Your task to perform on an android device: open app "Yahoo Mail" (install if not already installed) Image 0: 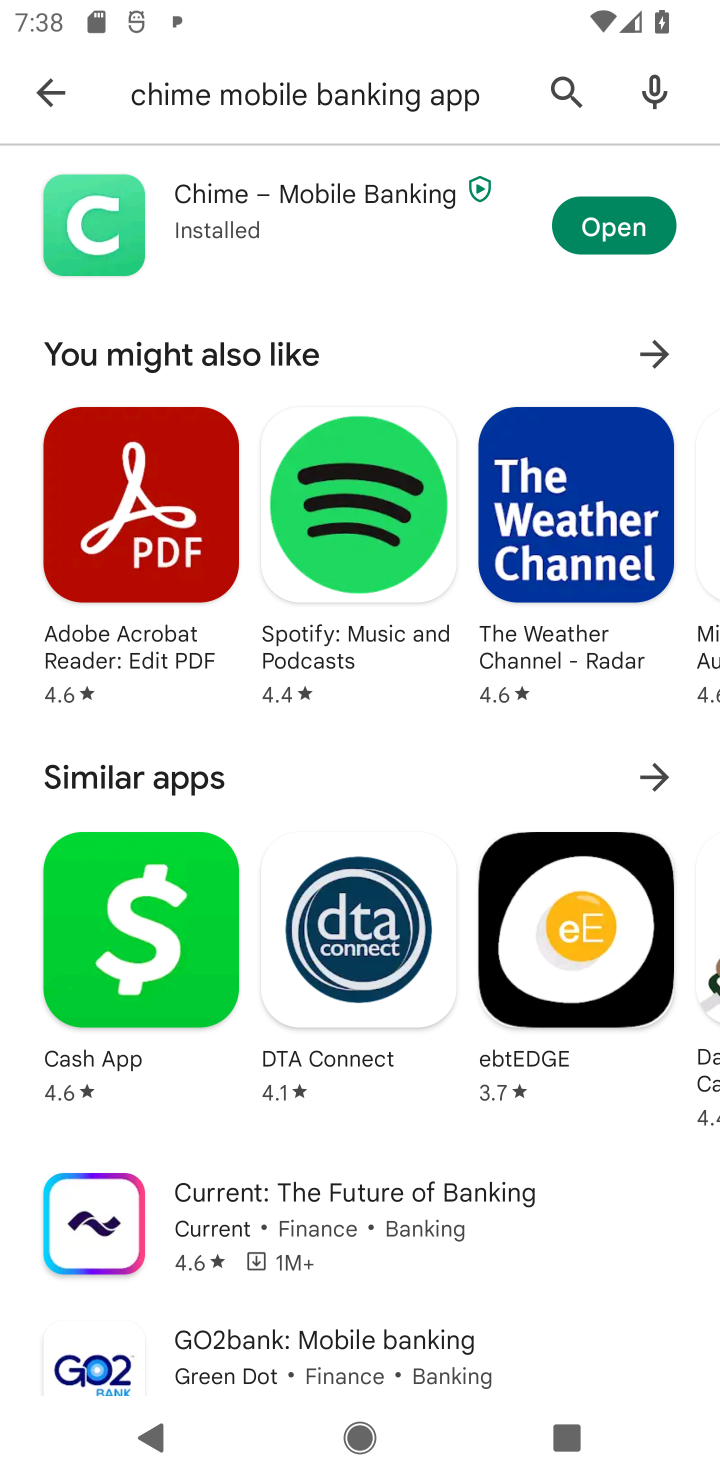
Step 0: press home button
Your task to perform on an android device: open app "Yahoo Mail" (install if not already installed) Image 1: 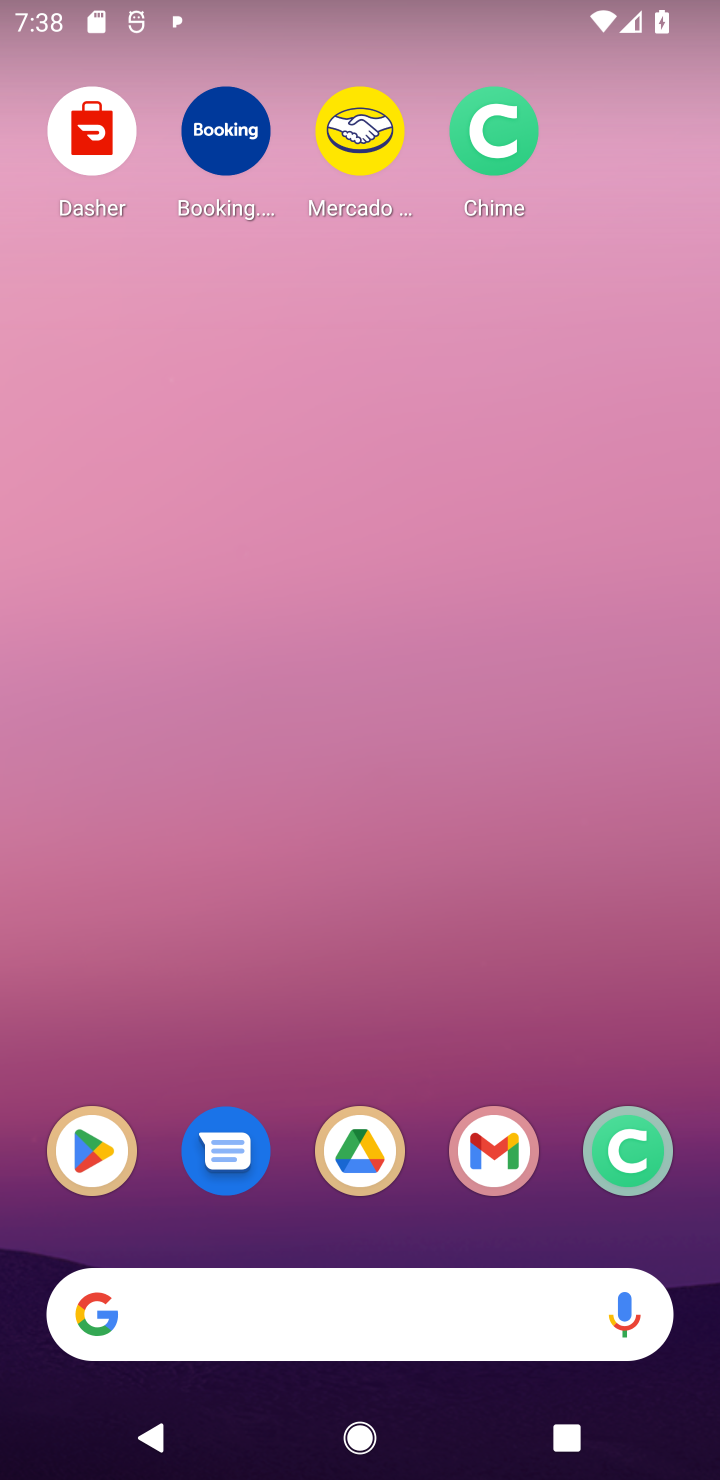
Step 1: click (95, 1152)
Your task to perform on an android device: open app "Yahoo Mail" (install if not already installed) Image 2: 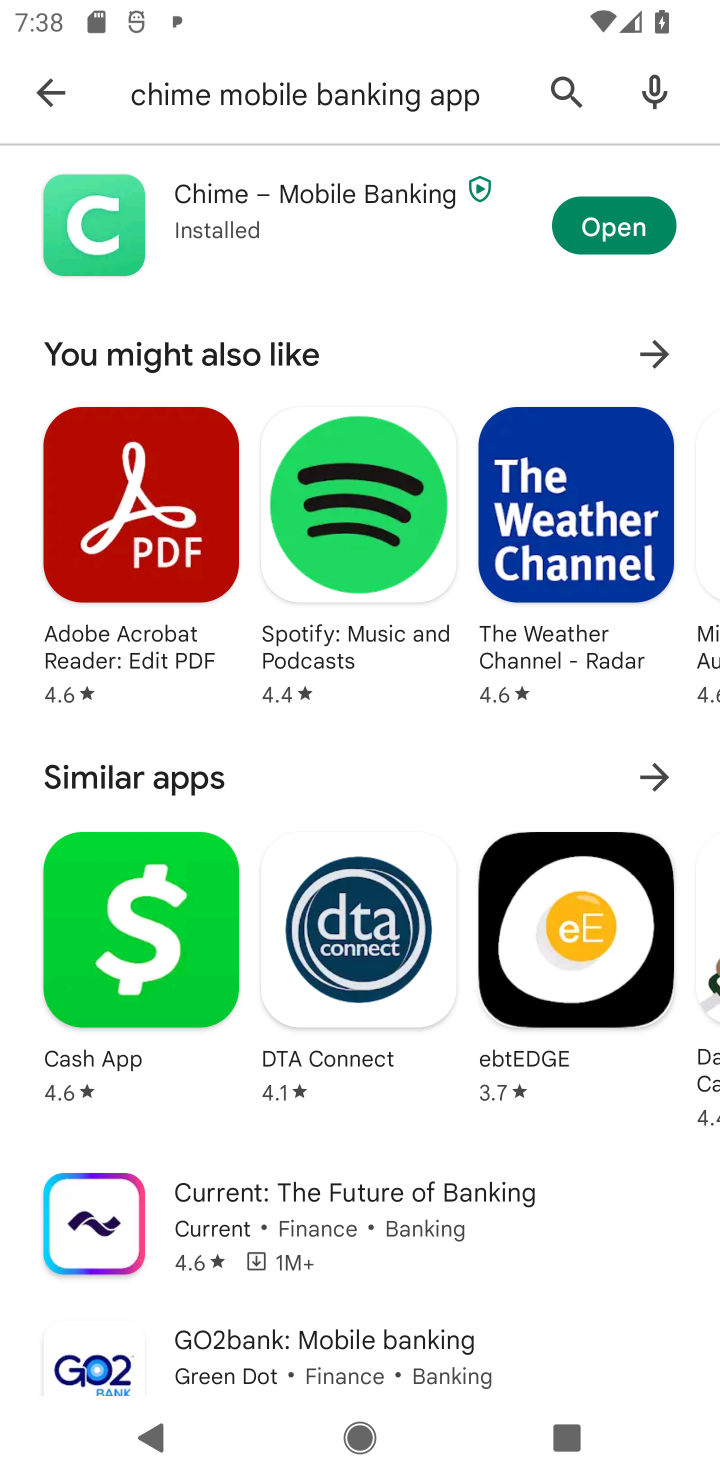
Step 2: click (573, 77)
Your task to perform on an android device: open app "Yahoo Mail" (install if not already installed) Image 3: 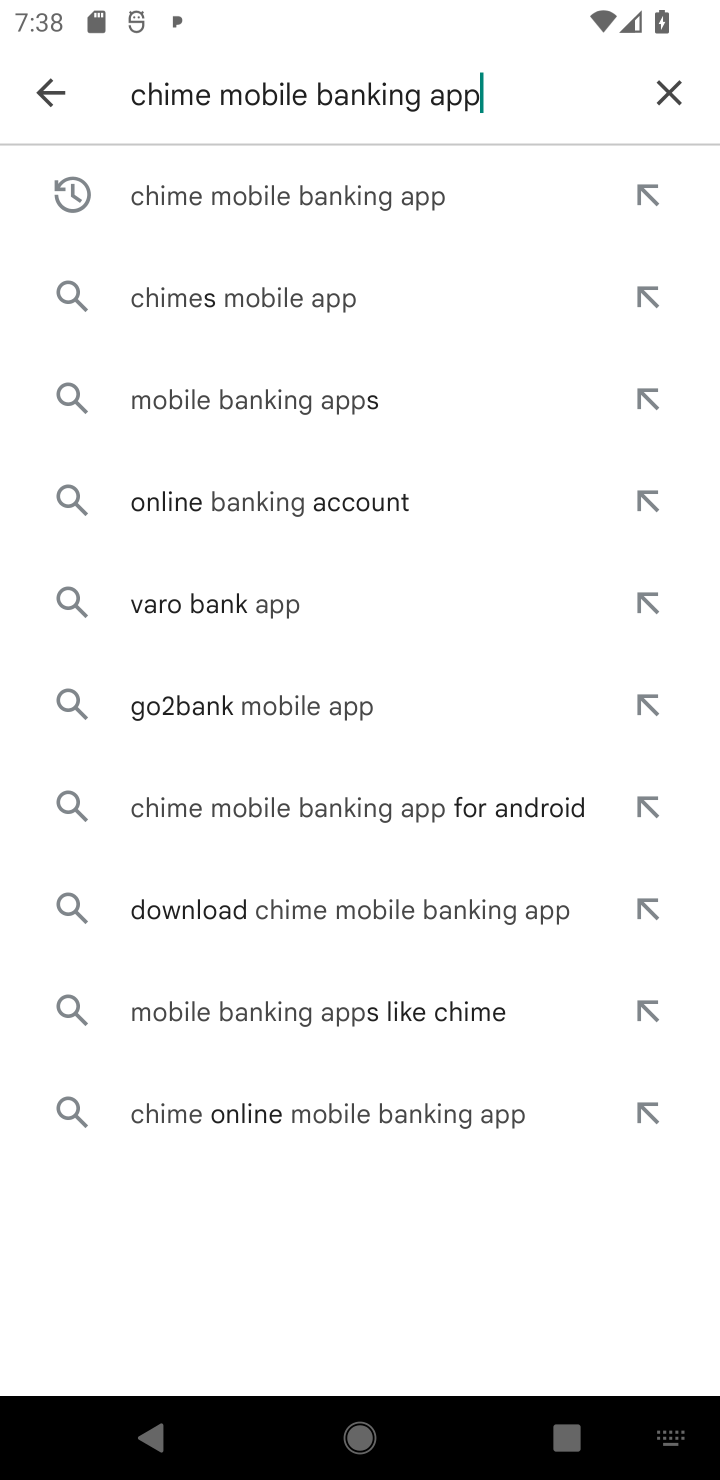
Step 3: click (674, 109)
Your task to perform on an android device: open app "Yahoo Mail" (install if not already installed) Image 4: 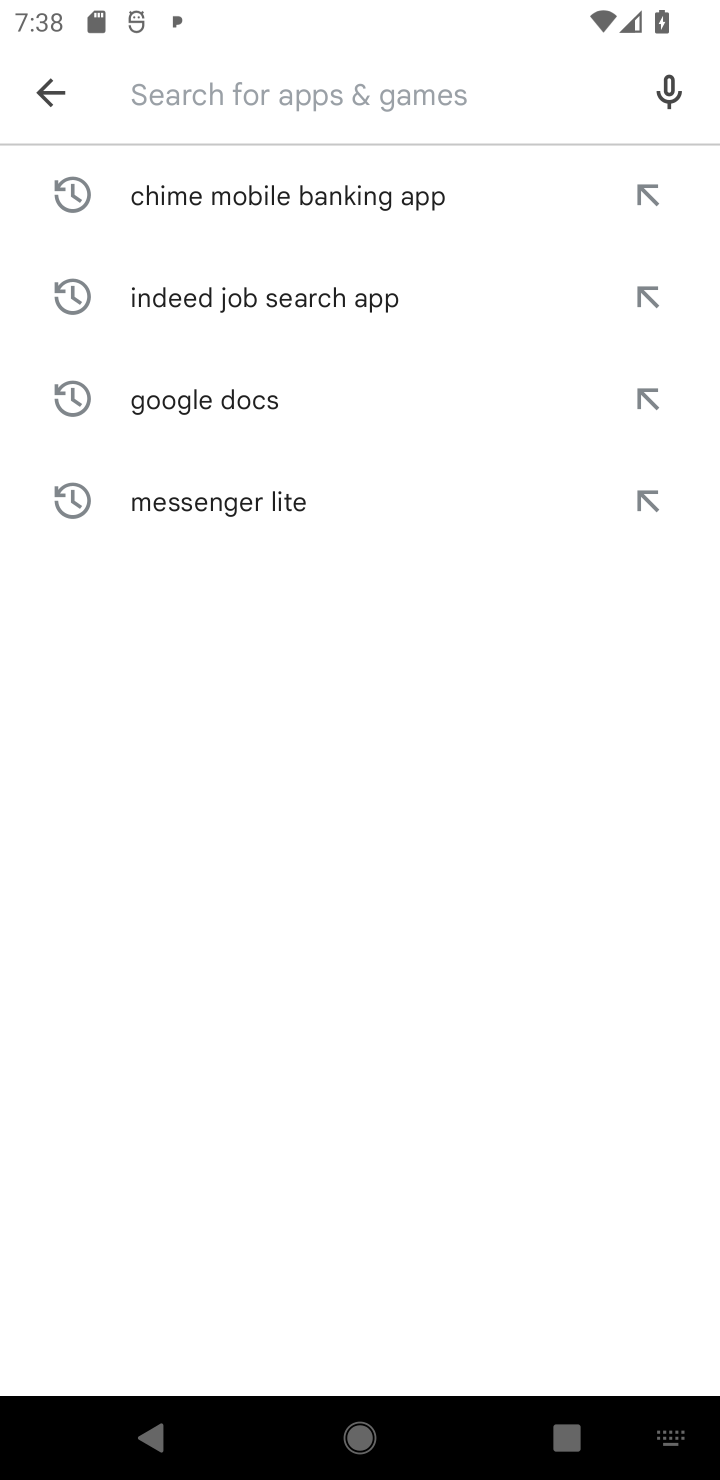
Step 4: type "Yahoo Mail"
Your task to perform on an android device: open app "Yahoo Mail" (install if not already installed) Image 5: 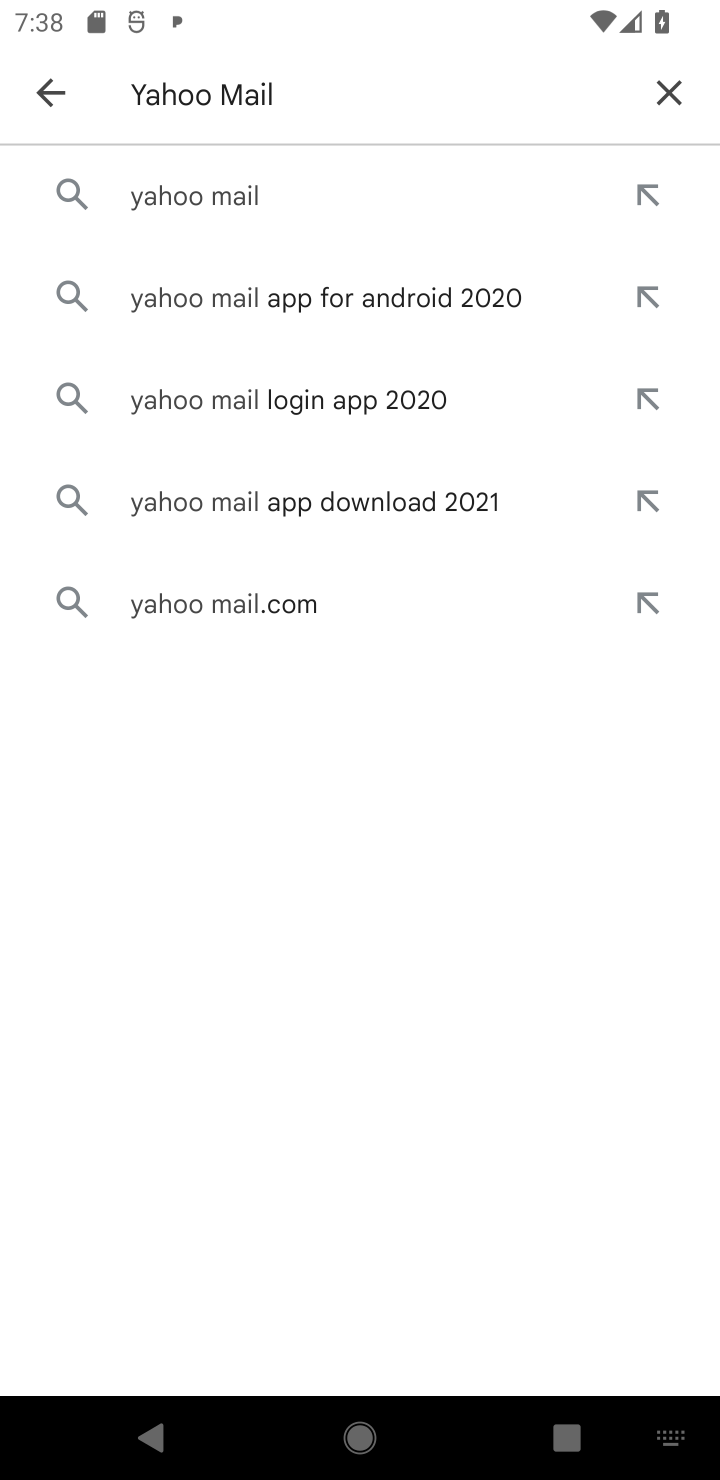
Step 5: click (225, 199)
Your task to perform on an android device: open app "Yahoo Mail" (install if not already installed) Image 6: 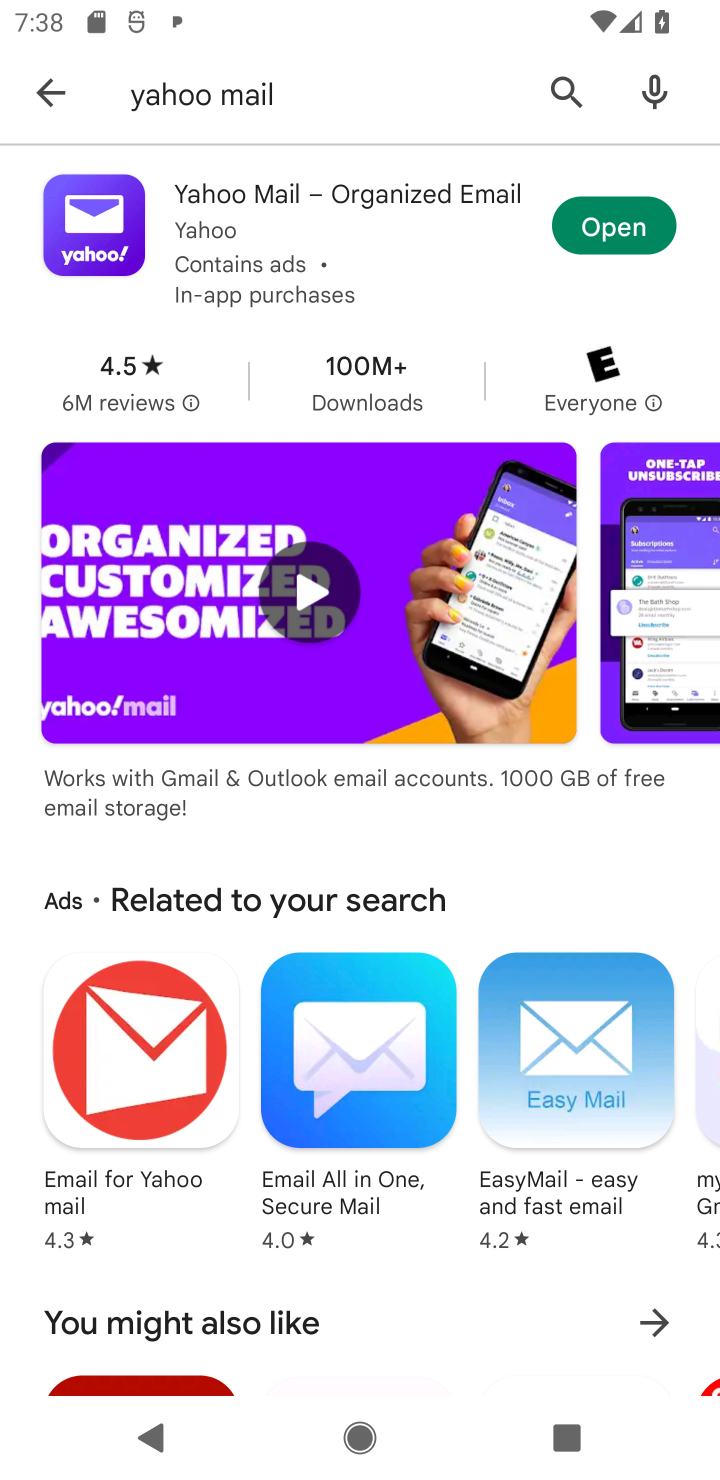
Step 6: click (598, 233)
Your task to perform on an android device: open app "Yahoo Mail" (install if not already installed) Image 7: 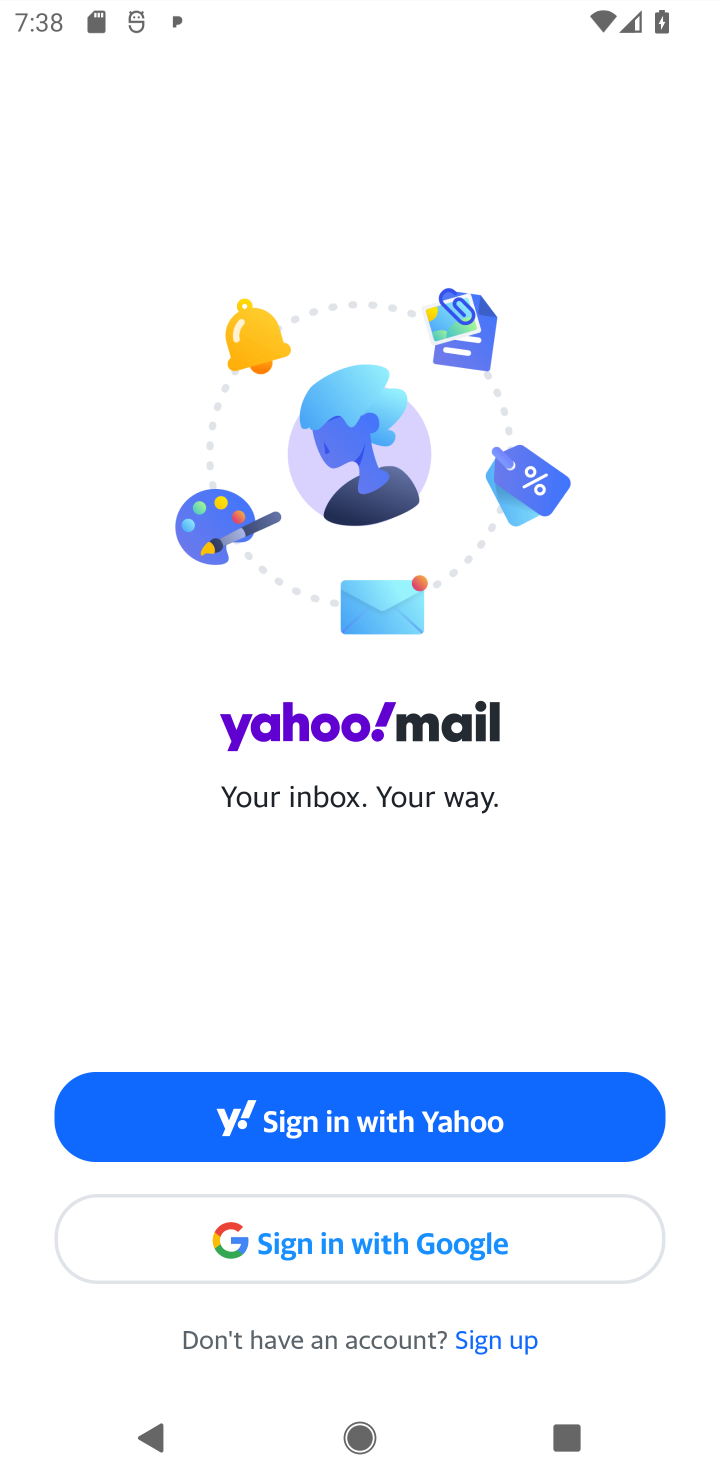
Step 7: task complete